Your task to perform on an android device: Open Google Image 0: 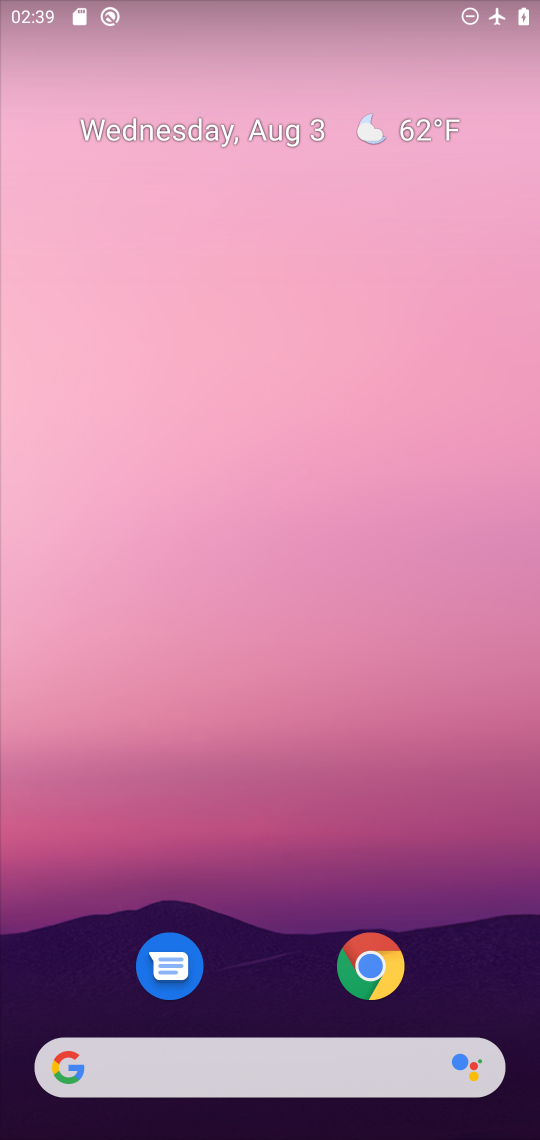
Step 0: drag from (273, 918) to (282, 306)
Your task to perform on an android device: Open Google Image 1: 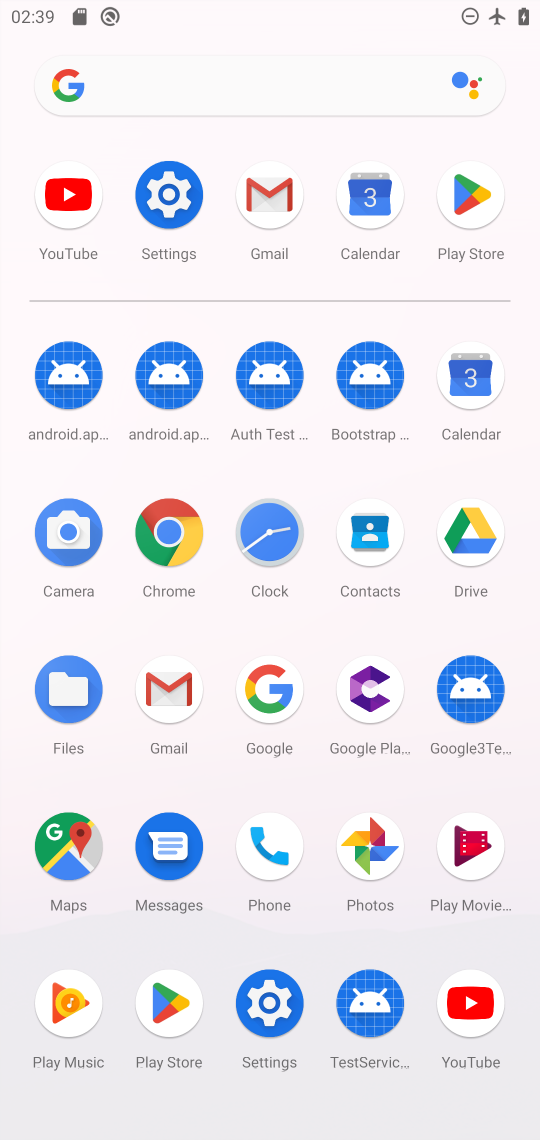
Step 1: click (255, 715)
Your task to perform on an android device: Open Google Image 2: 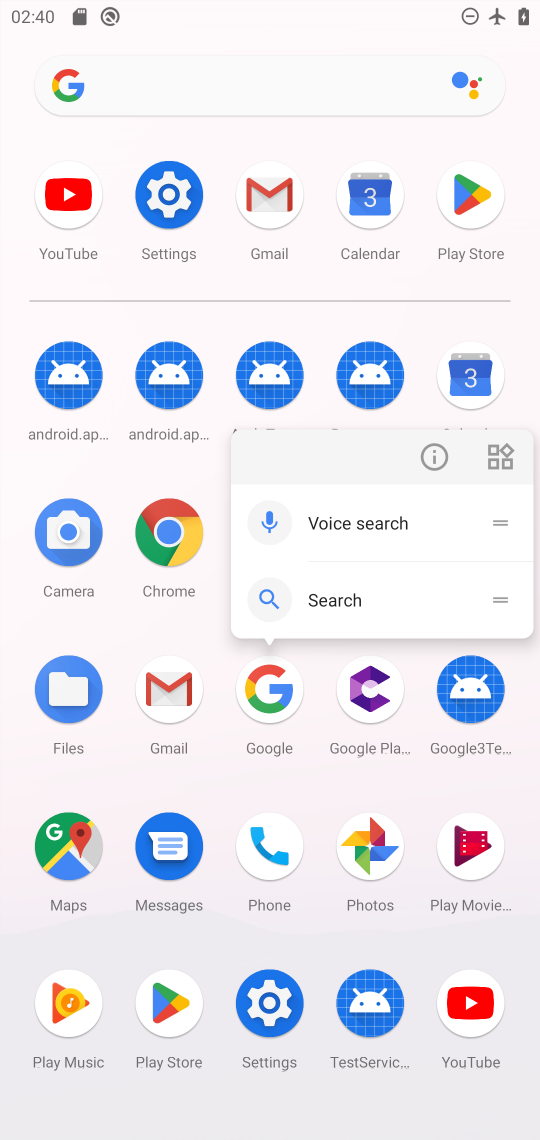
Step 2: click (258, 684)
Your task to perform on an android device: Open Google Image 3: 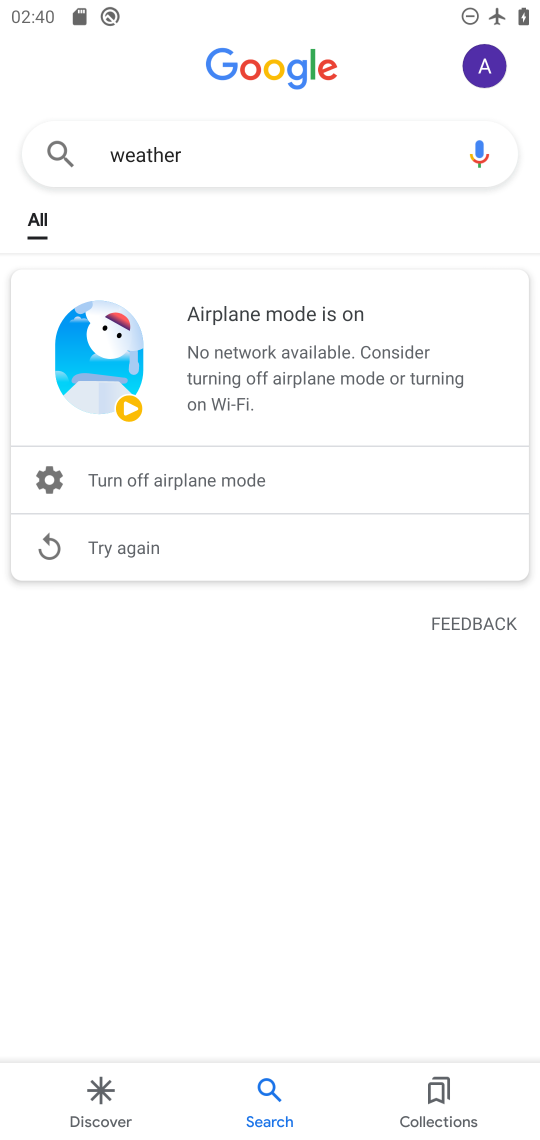
Step 3: task complete